Your task to perform on an android device: Open CNN.com Image 0: 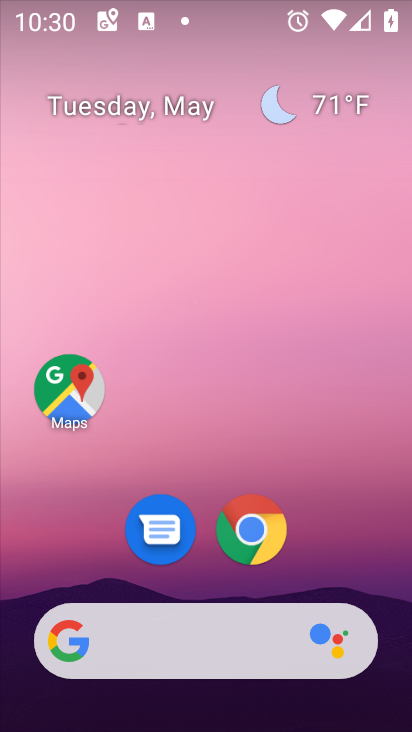
Step 0: drag from (199, 638) to (245, 80)
Your task to perform on an android device: Open CNN.com Image 1: 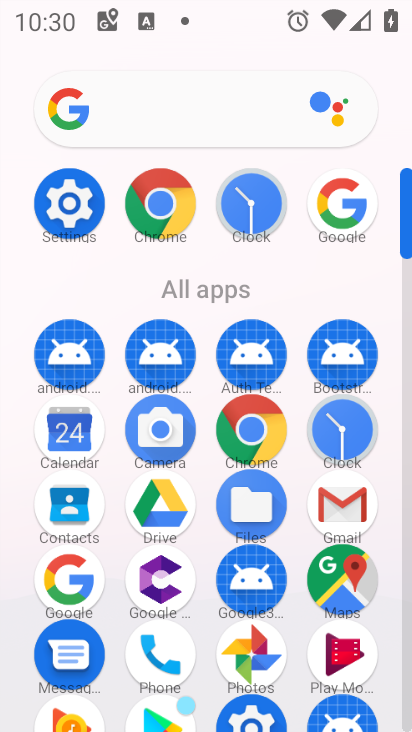
Step 1: click (159, 209)
Your task to perform on an android device: Open CNN.com Image 2: 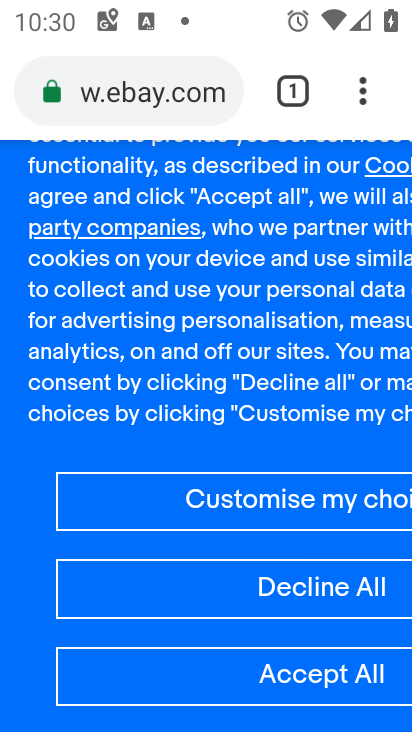
Step 2: click (176, 99)
Your task to perform on an android device: Open CNN.com Image 3: 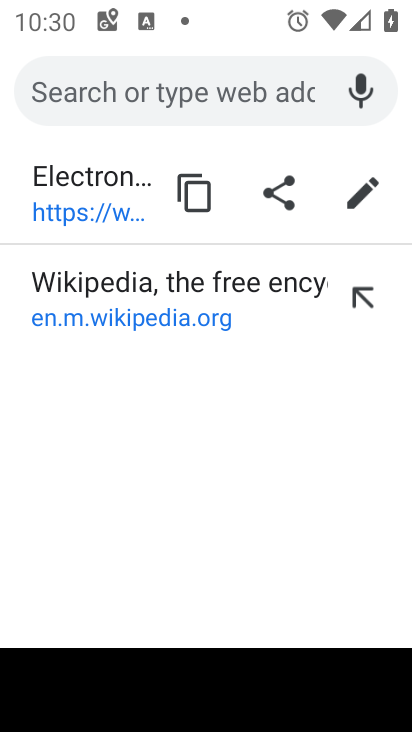
Step 3: type "cnn"
Your task to perform on an android device: Open CNN.com Image 4: 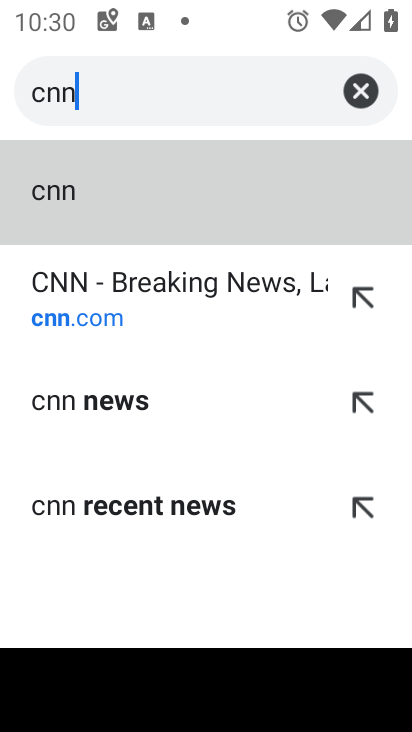
Step 4: click (259, 314)
Your task to perform on an android device: Open CNN.com Image 5: 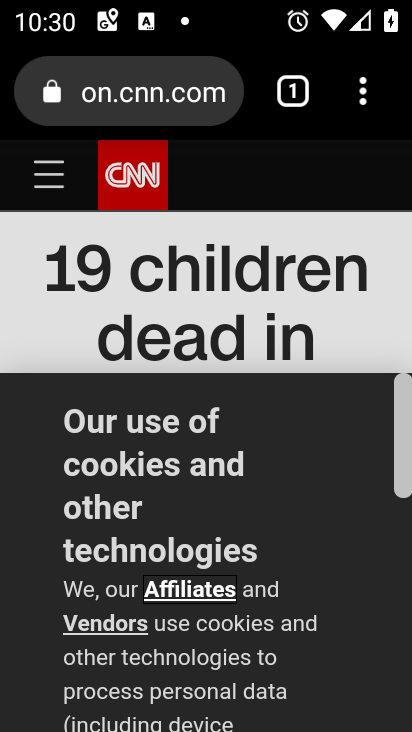
Step 5: task complete